Your task to perform on an android device: Do I have any events tomorrow? Image 0: 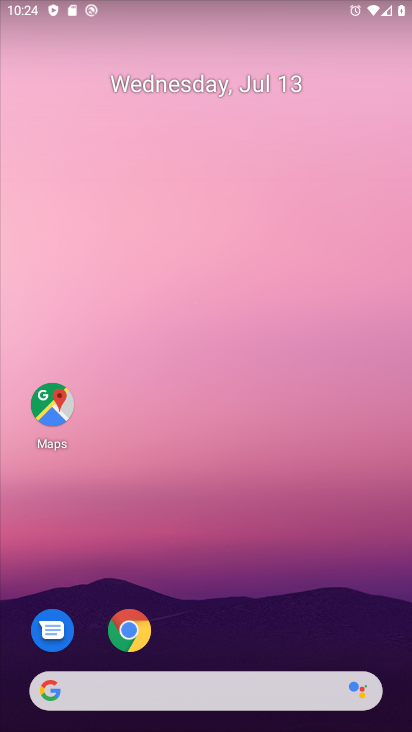
Step 0: click (52, 625)
Your task to perform on an android device: Do I have any events tomorrow? Image 1: 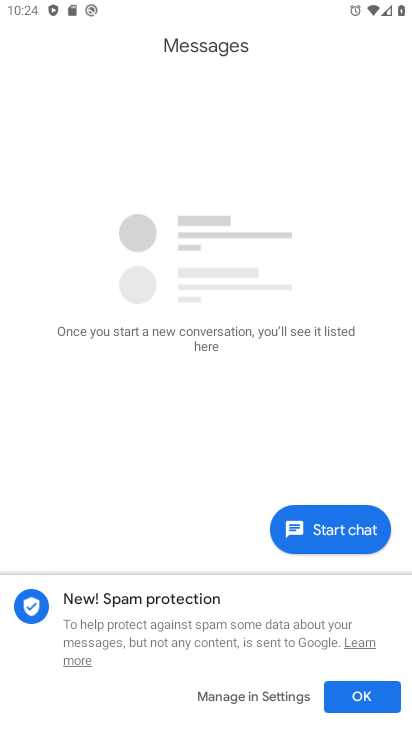
Step 1: press home button
Your task to perform on an android device: Do I have any events tomorrow? Image 2: 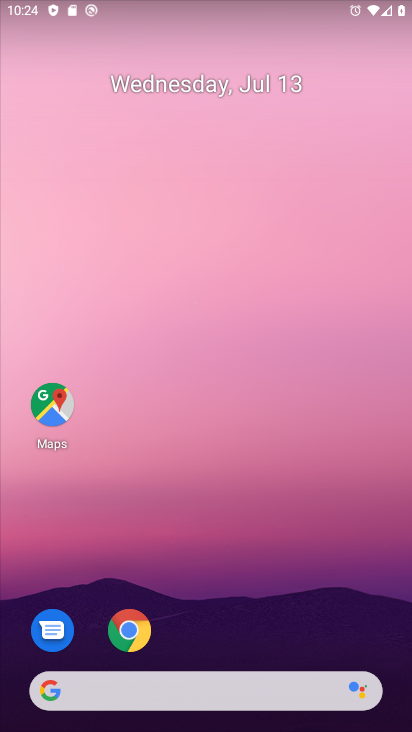
Step 2: drag from (264, 621) to (224, 94)
Your task to perform on an android device: Do I have any events tomorrow? Image 3: 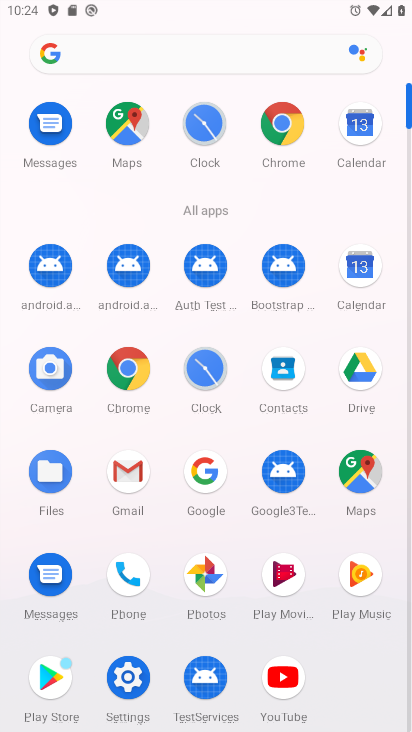
Step 3: click (364, 262)
Your task to perform on an android device: Do I have any events tomorrow? Image 4: 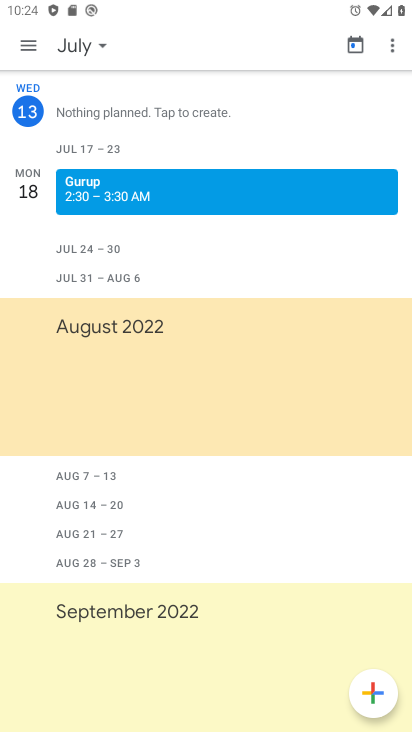
Step 4: click (33, 44)
Your task to perform on an android device: Do I have any events tomorrow? Image 5: 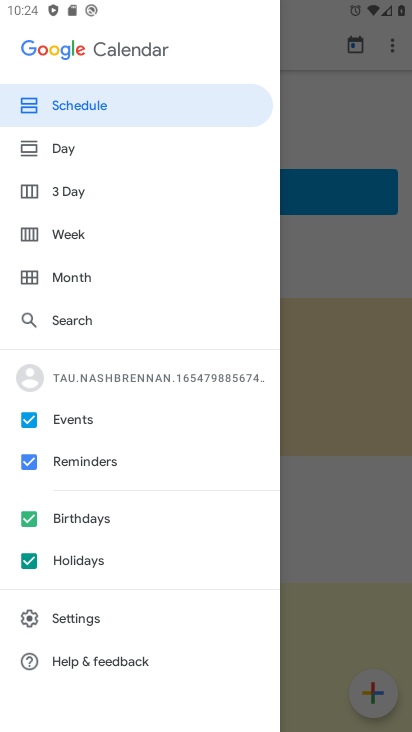
Step 5: click (25, 558)
Your task to perform on an android device: Do I have any events tomorrow? Image 6: 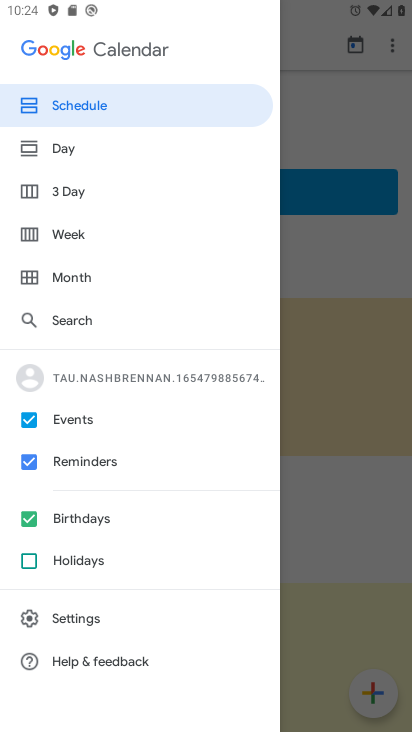
Step 6: click (27, 515)
Your task to perform on an android device: Do I have any events tomorrow? Image 7: 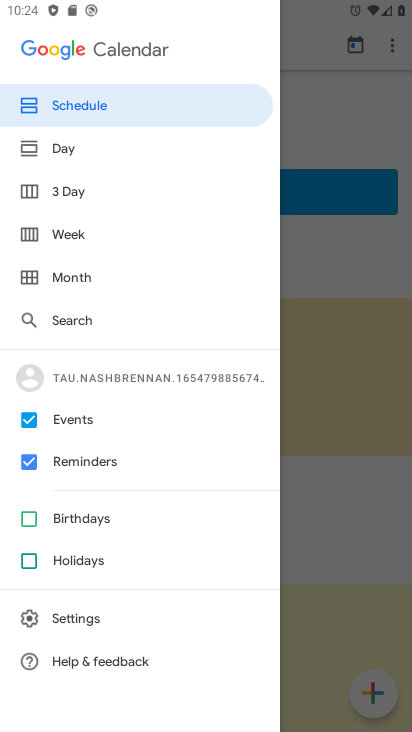
Step 7: click (27, 462)
Your task to perform on an android device: Do I have any events tomorrow? Image 8: 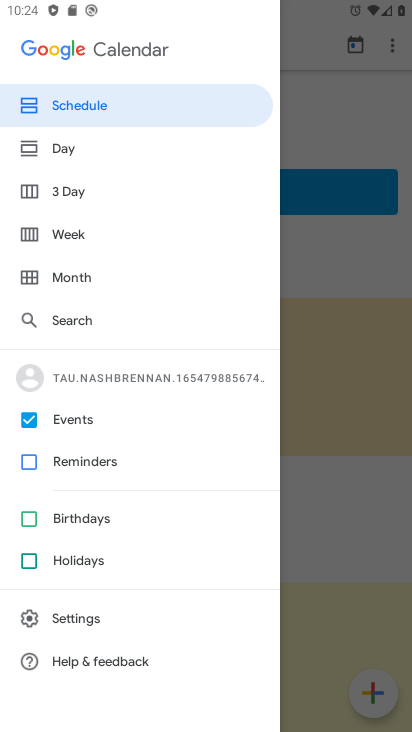
Step 8: click (72, 142)
Your task to perform on an android device: Do I have any events tomorrow? Image 9: 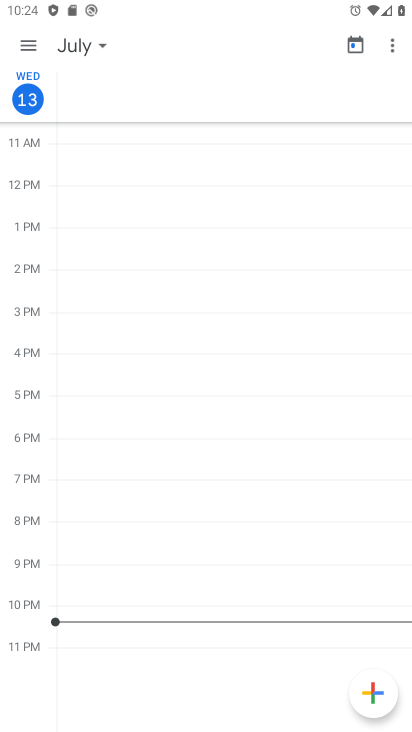
Step 9: drag from (322, 352) to (0, 318)
Your task to perform on an android device: Do I have any events tomorrow? Image 10: 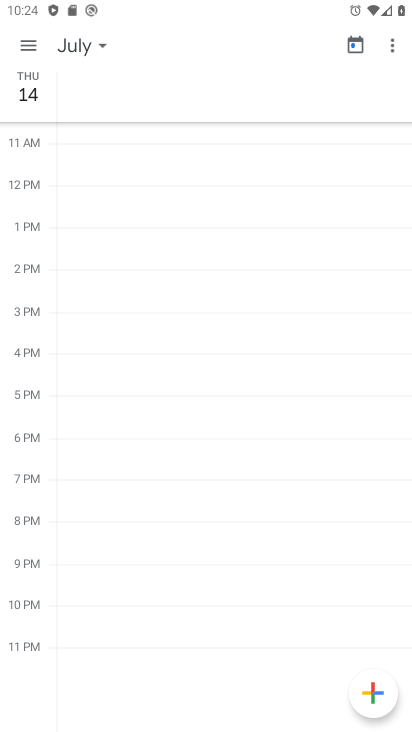
Step 10: click (381, 437)
Your task to perform on an android device: Do I have any events tomorrow? Image 11: 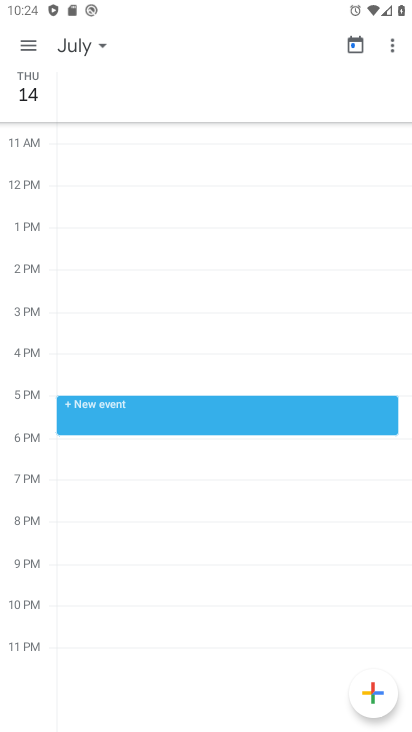
Step 11: task complete